Your task to perform on an android device: turn on data saver in the chrome app Image 0: 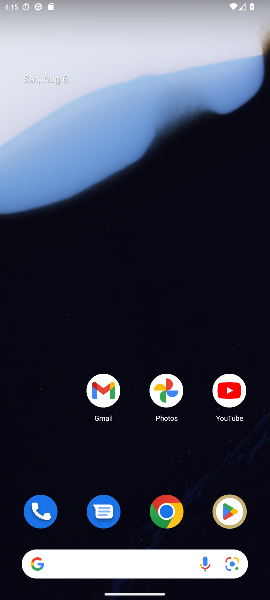
Step 0: click (172, 506)
Your task to perform on an android device: turn on data saver in the chrome app Image 1: 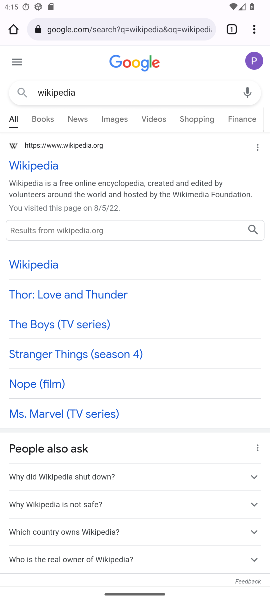
Step 1: click (244, 24)
Your task to perform on an android device: turn on data saver in the chrome app Image 2: 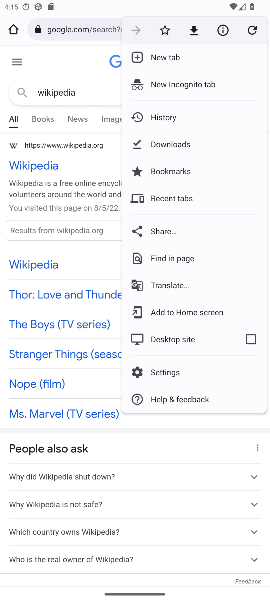
Step 2: click (170, 370)
Your task to perform on an android device: turn on data saver in the chrome app Image 3: 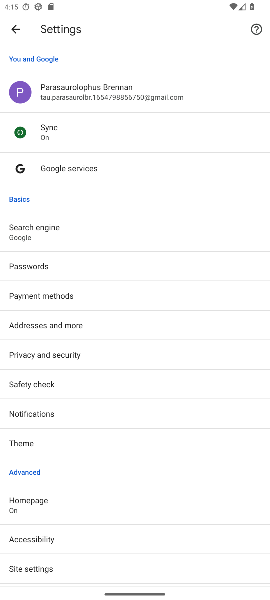
Step 3: drag from (52, 561) to (77, 457)
Your task to perform on an android device: turn on data saver in the chrome app Image 4: 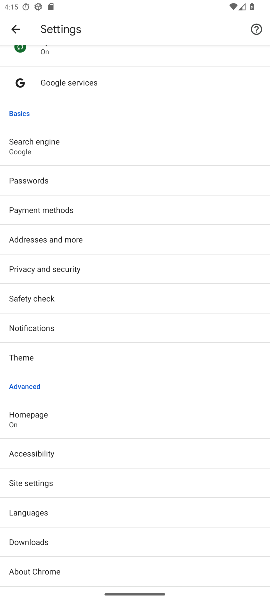
Step 4: click (44, 484)
Your task to perform on an android device: turn on data saver in the chrome app Image 5: 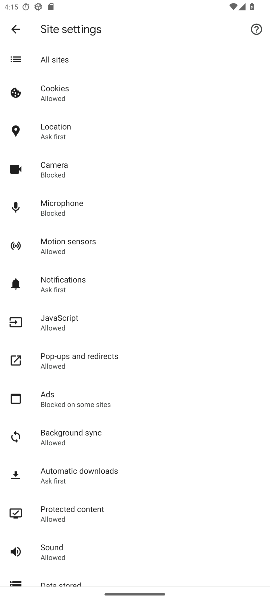
Step 5: click (11, 29)
Your task to perform on an android device: turn on data saver in the chrome app Image 6: 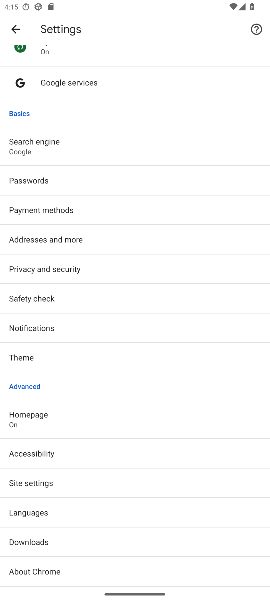
Step 6: drag from (40, 553) to (66, 455)
Your task to perform on an android device: turn on data saver in the chrome app Image 7: 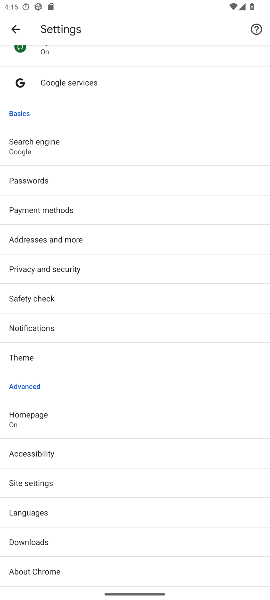
Step 7: click (36, 564)
Your task to perform on an android device: turn on data saver in the chrome app Image 8: 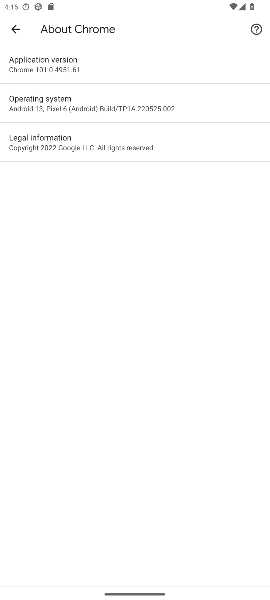
Step 8: click (16, 24)
Your task to perform on an android device: turn on data saver in the chrome app Image 9: 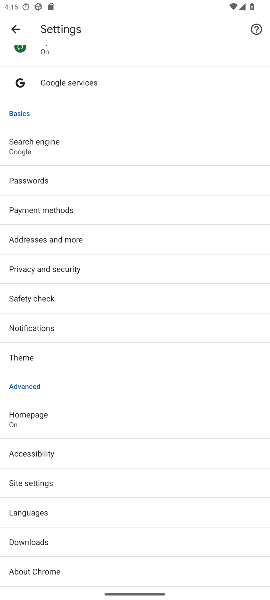
Step 9: task complete